Your task to perform on an android device: Go to notification settings Image 0: 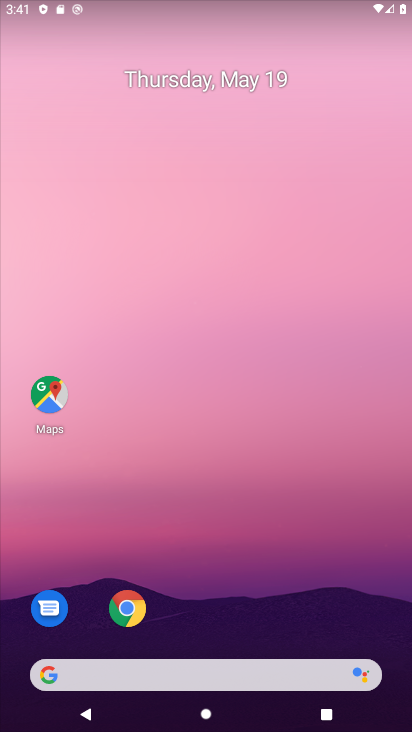
Step 0: drag from (235, 723) to (254, 89)
Your task to perform on an android device: Go to notification settings Image 1: 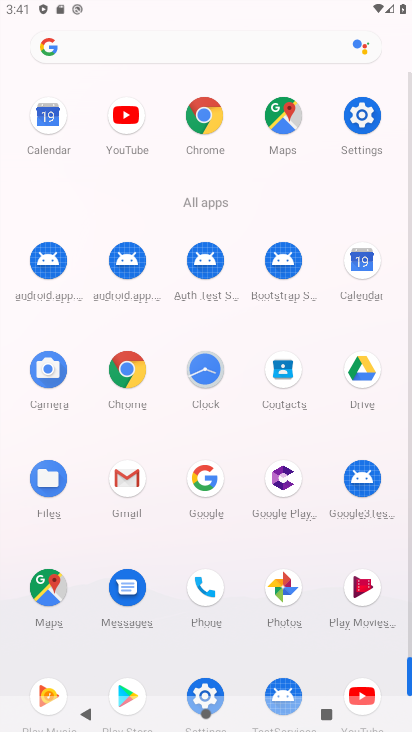
Step 1: click (361, 123)
Your task to perform on an android device: Go to notification settings Image 2: 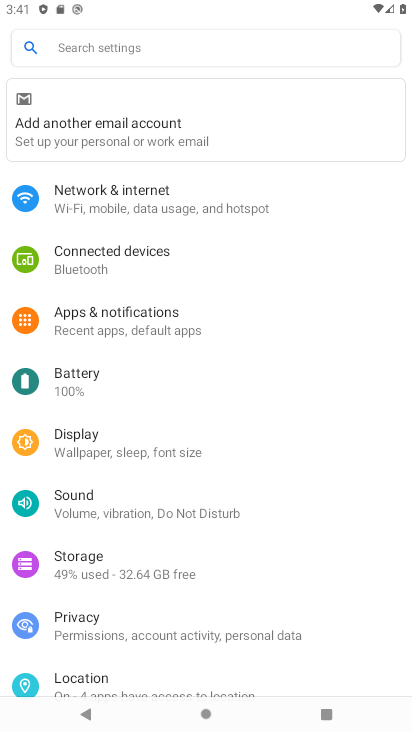
Step 2: click (123, 327)
Your task to perform on an android device: Go to notification settings Image 3: 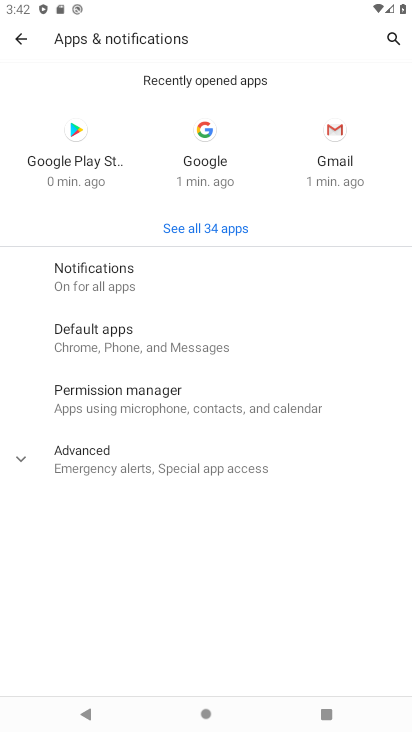
Step 3: click (102, 276)
Your task to perform on an android device: Go to notification settings Image 4: 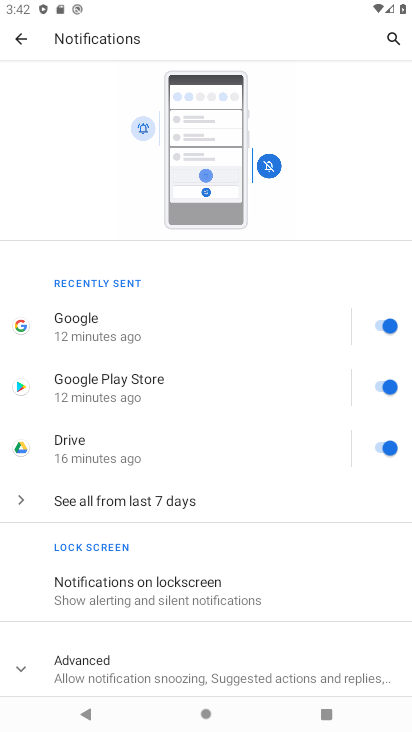
Step 4: task complete